Your task to perform on an android device: Do I have any events today? Image 0: 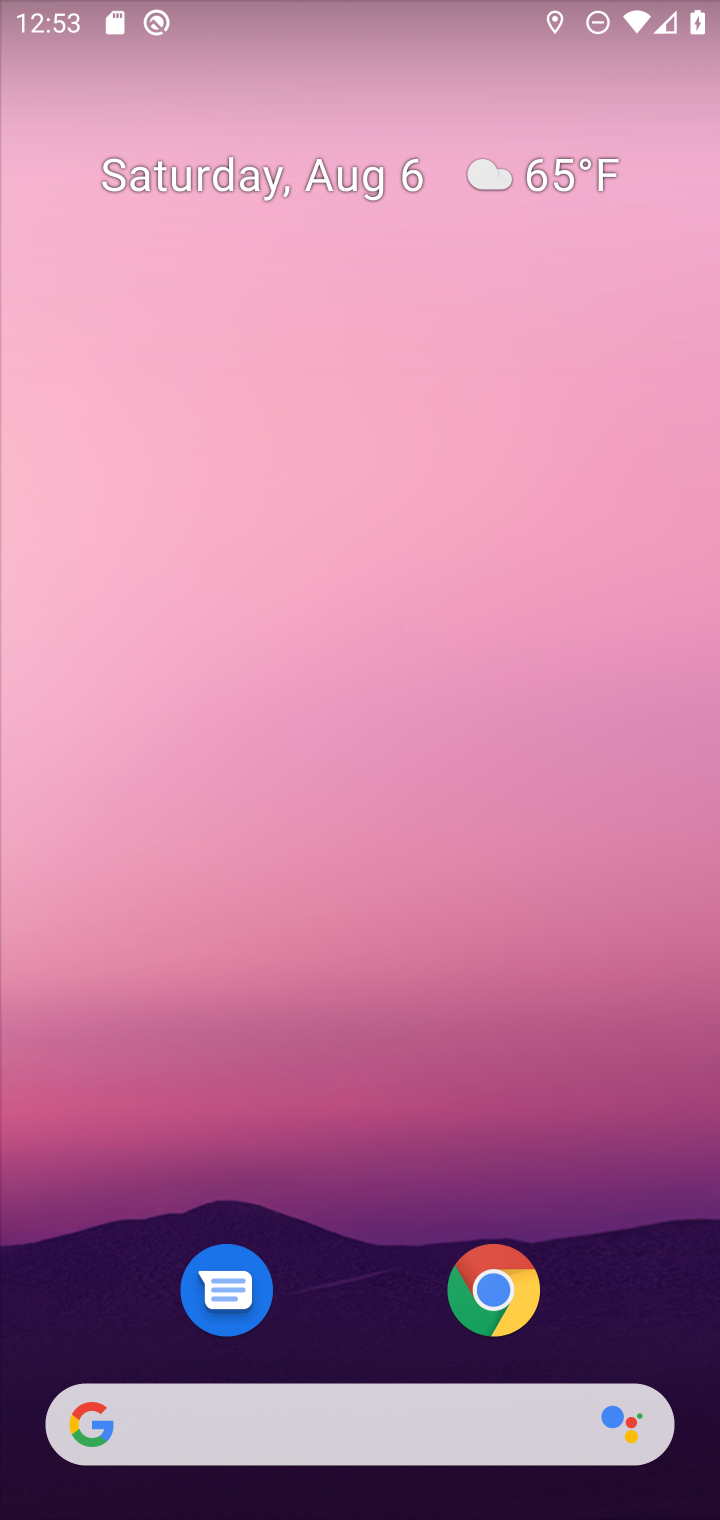
Step 0: press back button
Your task to perform on an android device: Do I have any events today? Image 1: 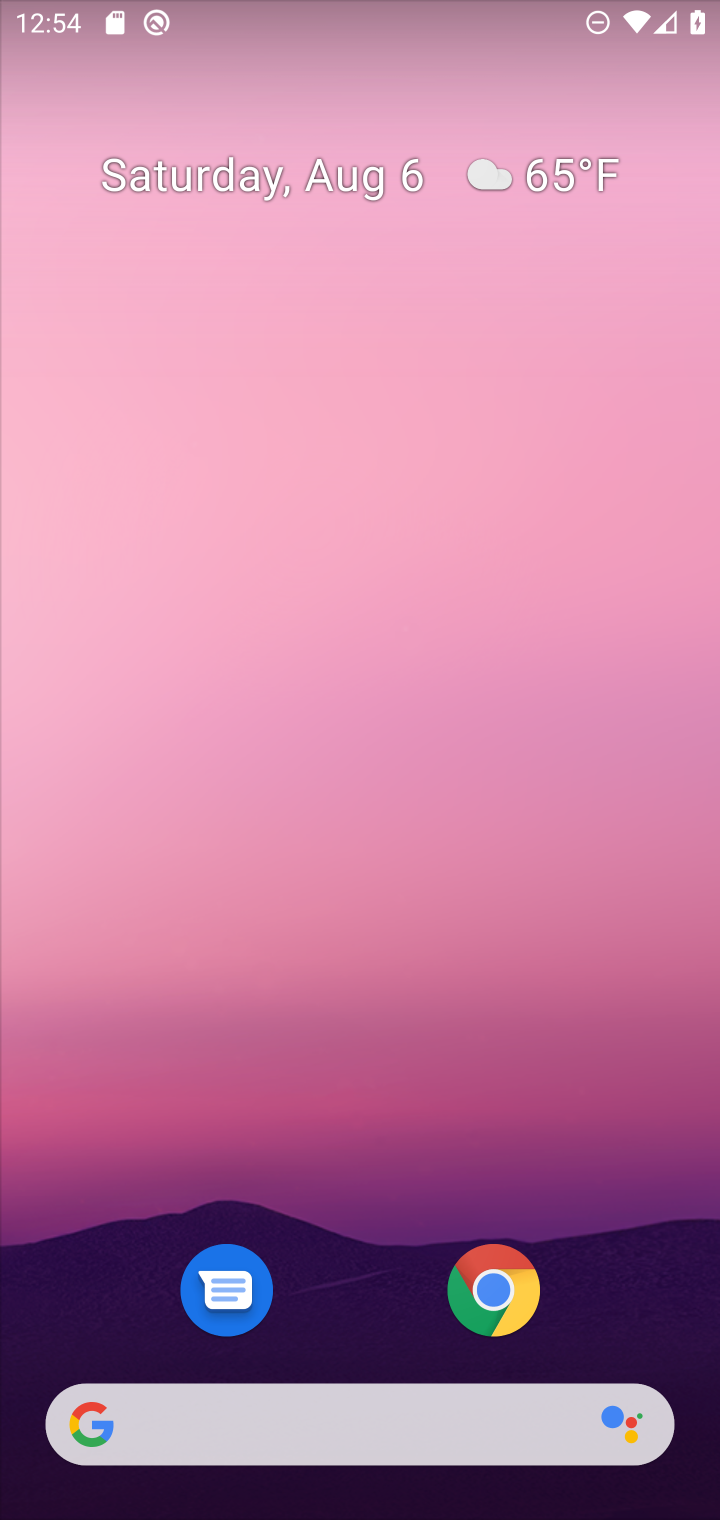
Step 1: drag from (385, 1376) to (175, 39)
Your task to perform on an android device: Do I have any events today? Image 2: 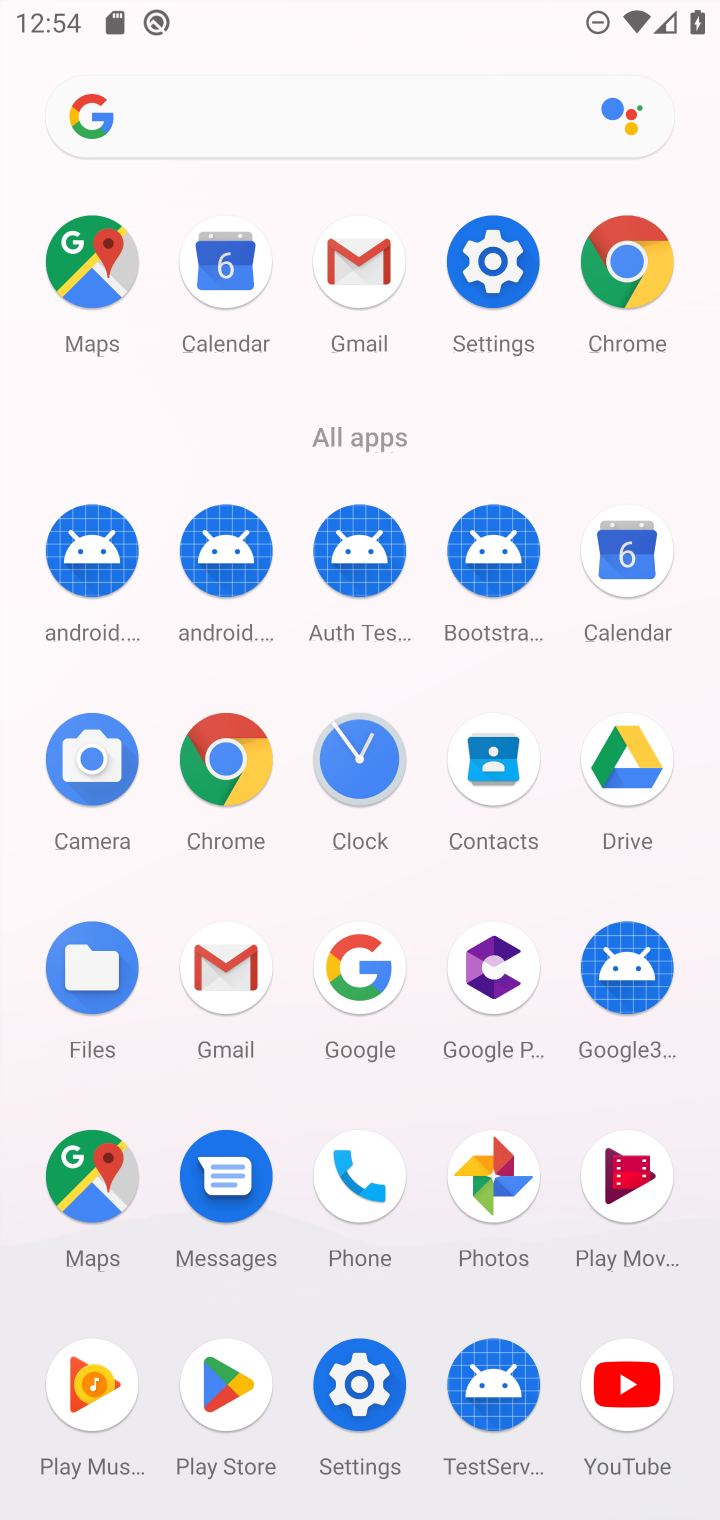
Step 2: click (630, 548)
Your task to perform on an android device: Do I have any events today? Image 3: 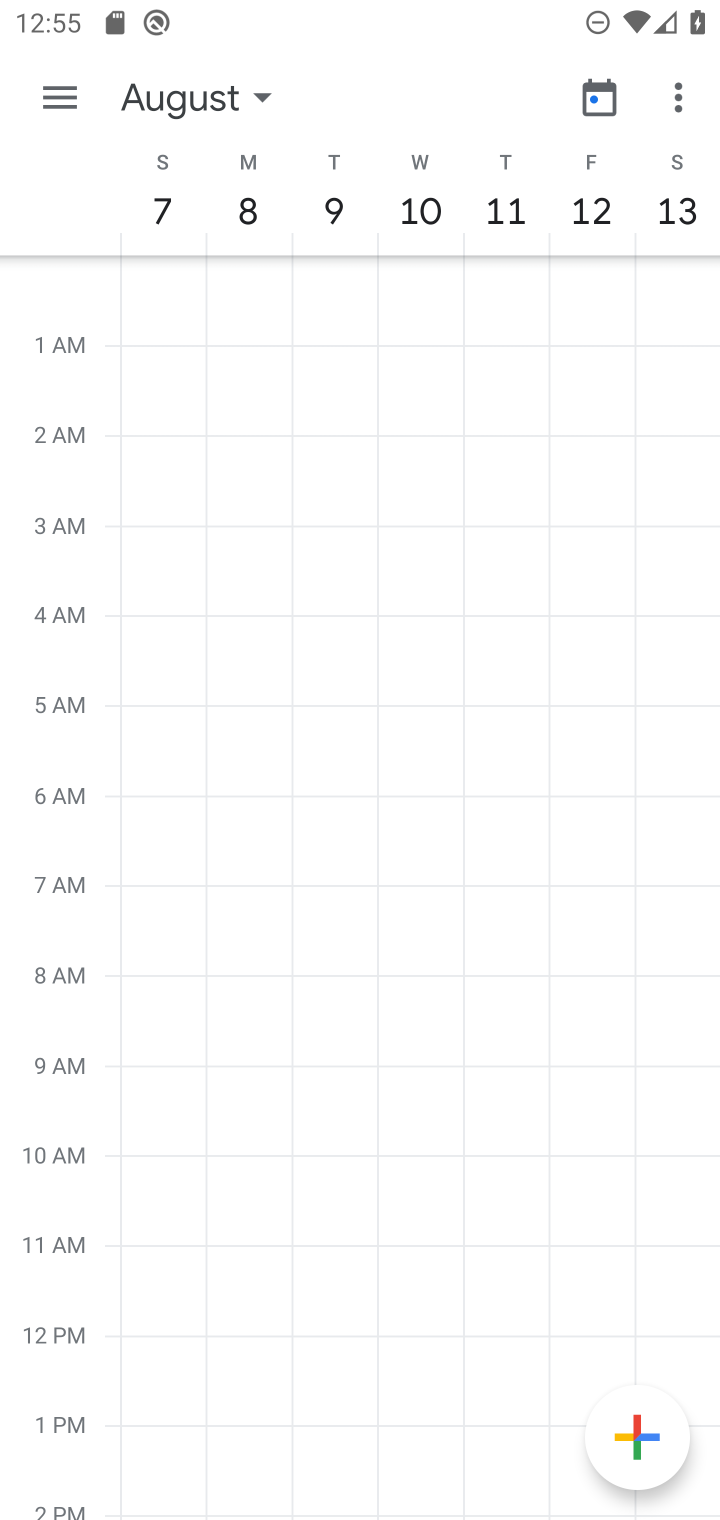
Step 3: click (581, 95)
Your task to perform on an android device: Do I have any events today? Image 4: 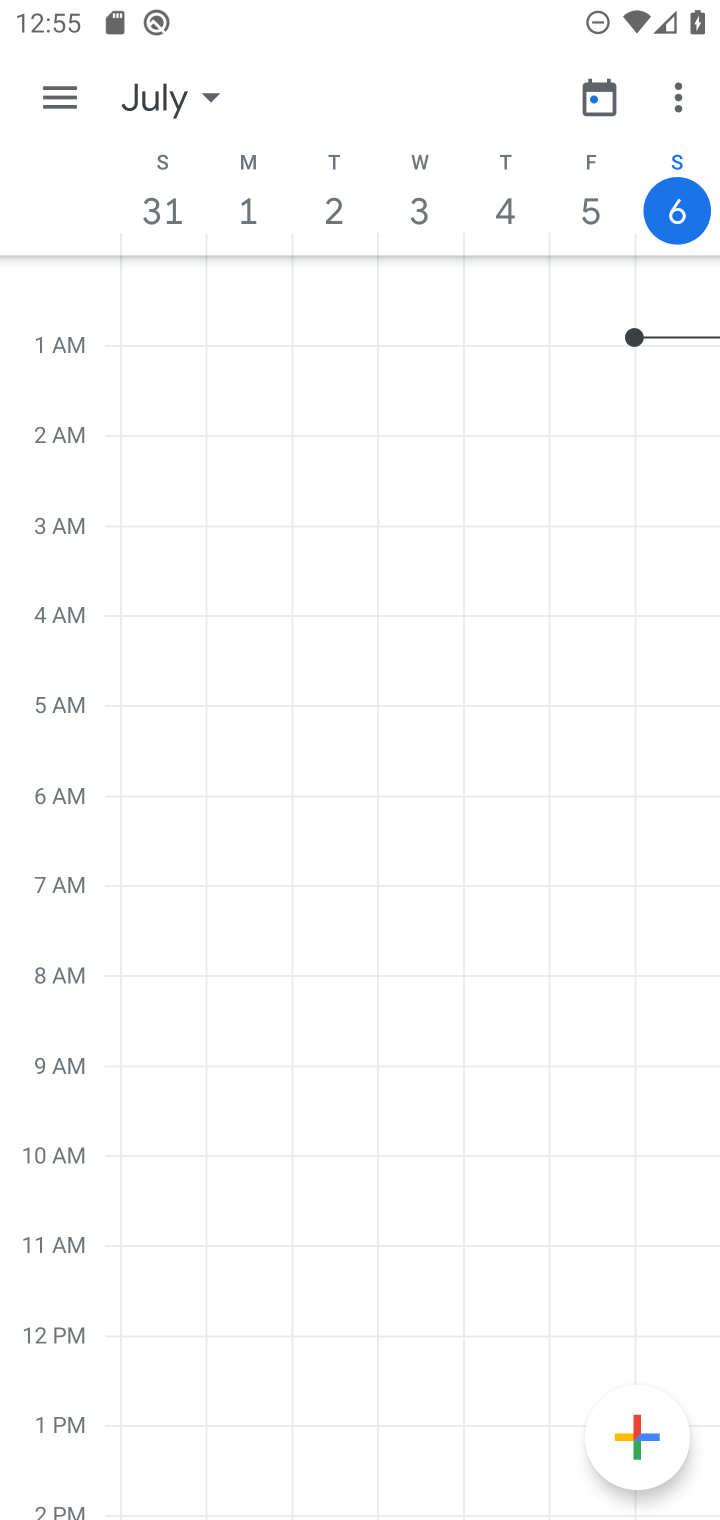
Step 4: click (678, 204)
Your task to perform on an android device: Do I have any events today? Image 5: 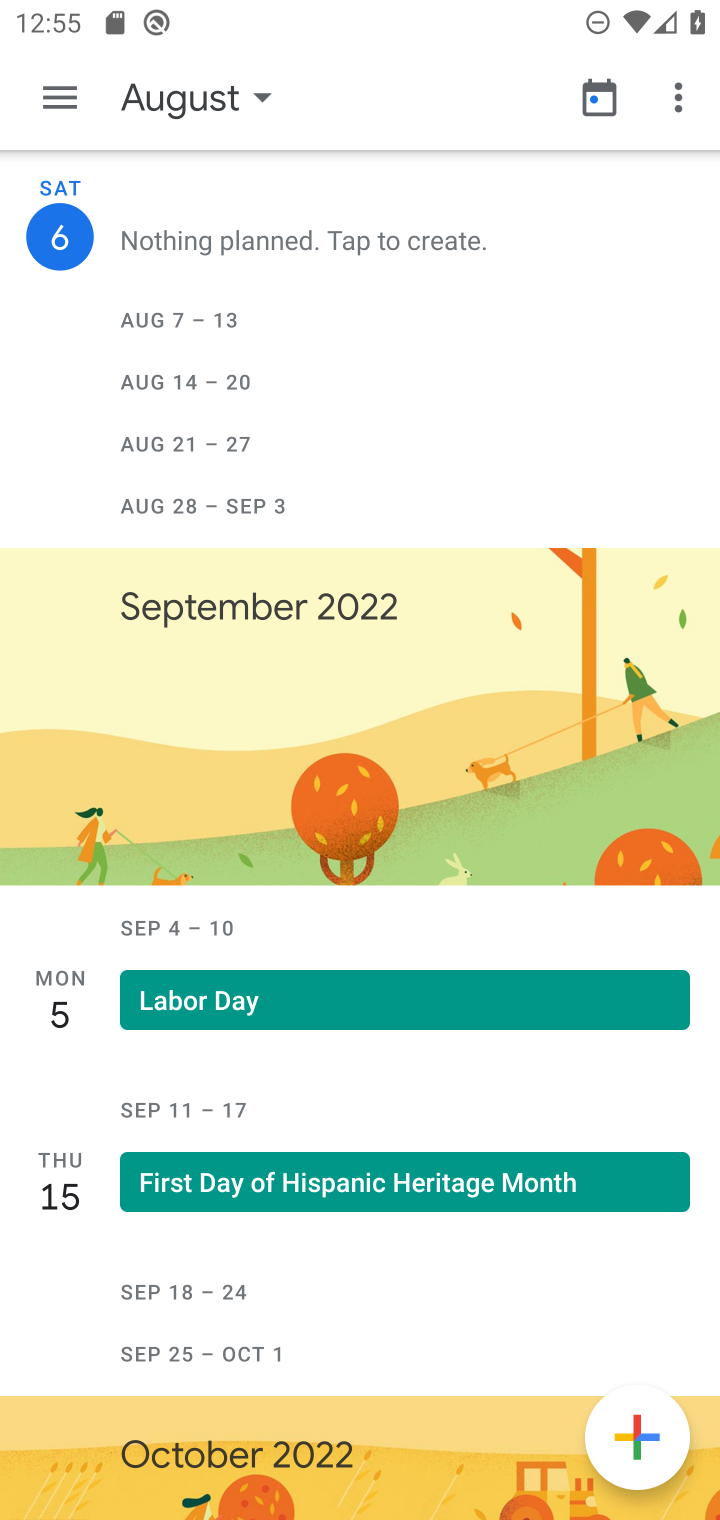
Step 5: task complete